Your task to perform on an android device: open device folders in google photos Image 0: 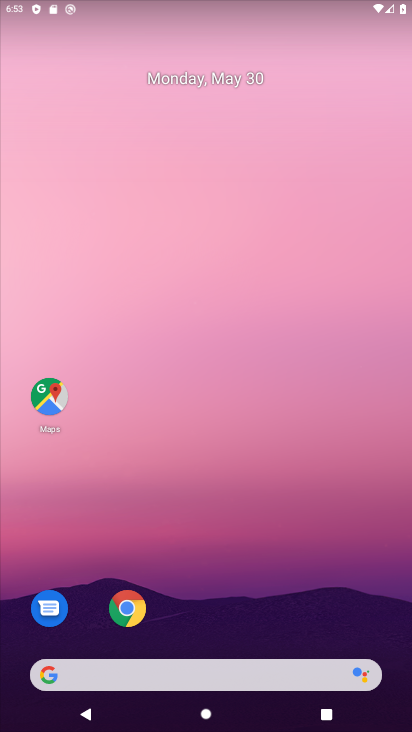
Step 0: drag from (183, 641) to (236, 265)
Your task to perform on an android device: open device folders in google photos Image 1: 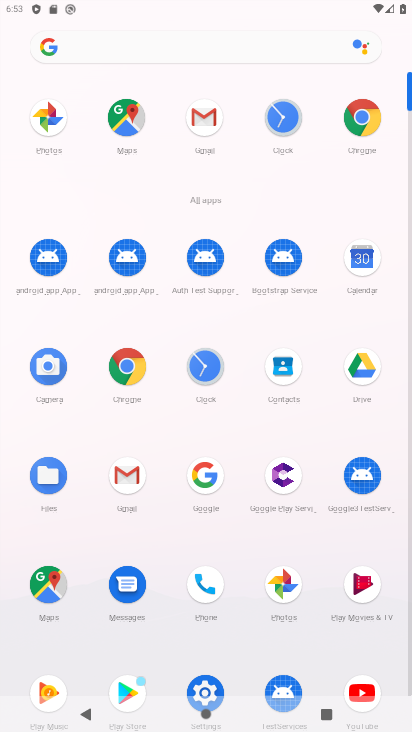
Step 1: click (284, 588)
Your task to perform on an android device: open device folders in google photos Image 2: 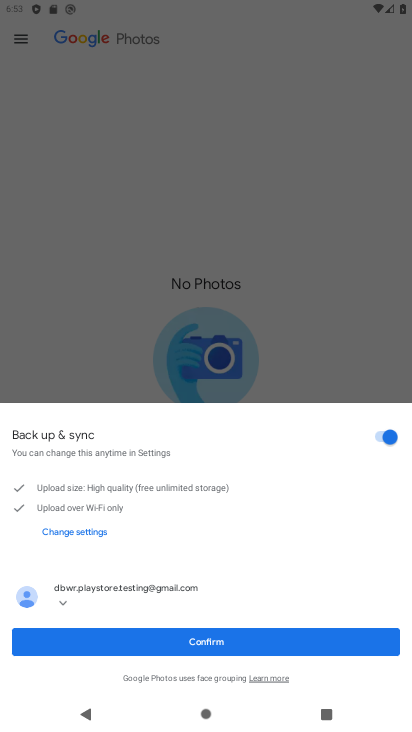
Step 2: click (238, 642)
Your task to perform on an android device: open device folders in google photos Image 3: 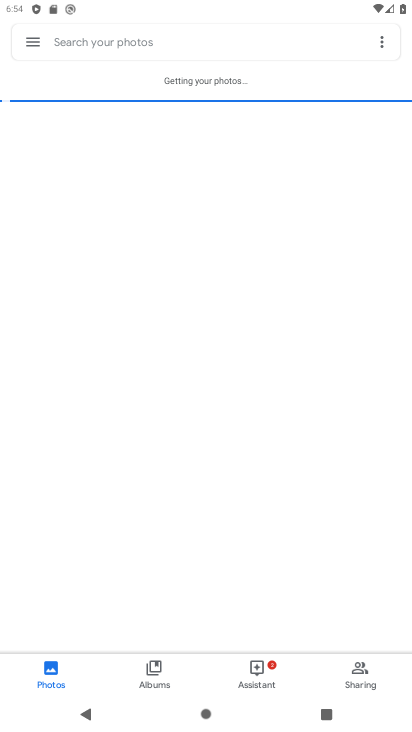
Step 3: click (105, 40)
Your task to perform on an android device: open device folders in google photos Image 4: 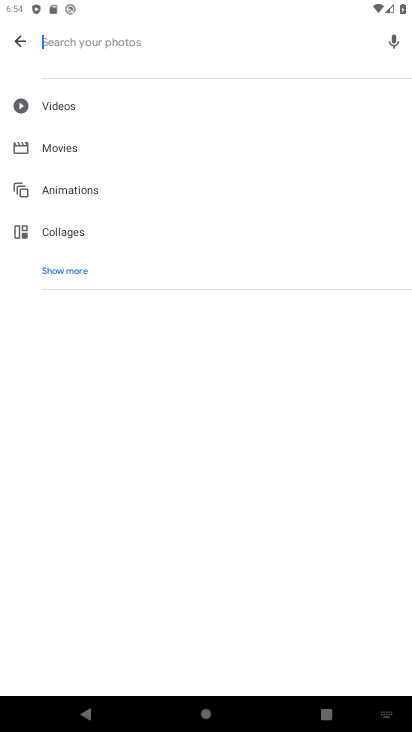
Step 4: type "device folder"
Your task to perform on an android device: open device folders in google photos Image 5: 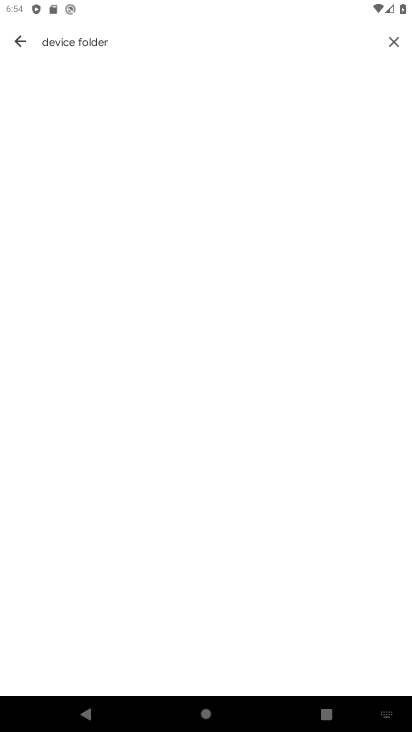
Step 5: click (397, 43)
Your task to perform on an android device: open device folders in google photos Image 6: 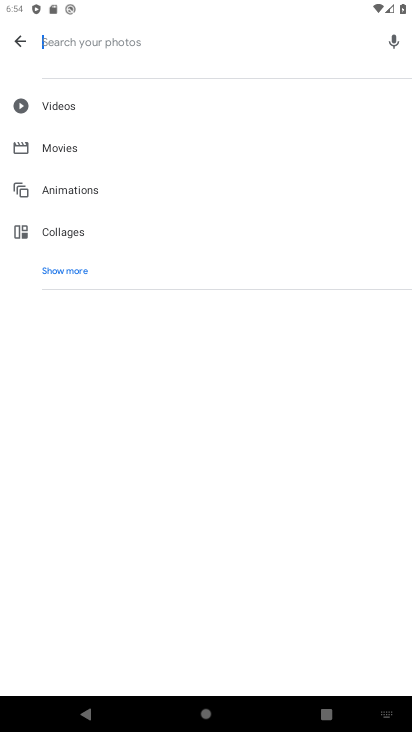
Step 6: type "device"
Your task to perform on an android device: open device folders in google photos Image 7: 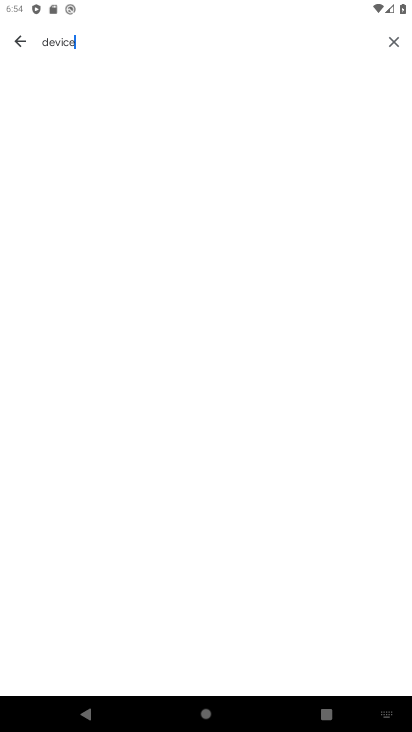
Step 7: task complete